Your task to perform on an android device: uninstall "Google Play services" Image 0: 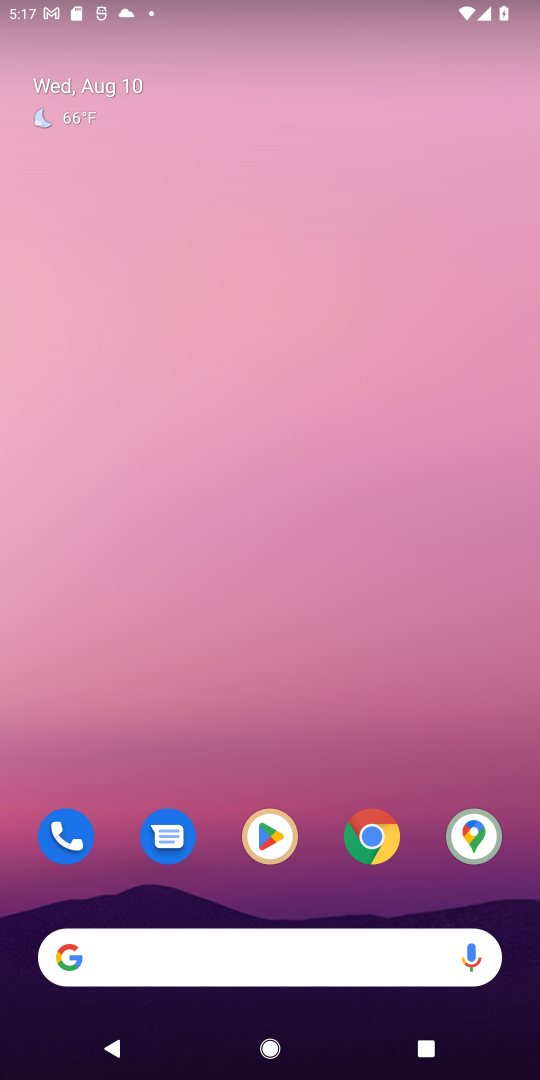
Step 0: drag from (164, 901) to (151, 246)
Your task to perform on an android device: uninstall "Google Play services" Image 1: 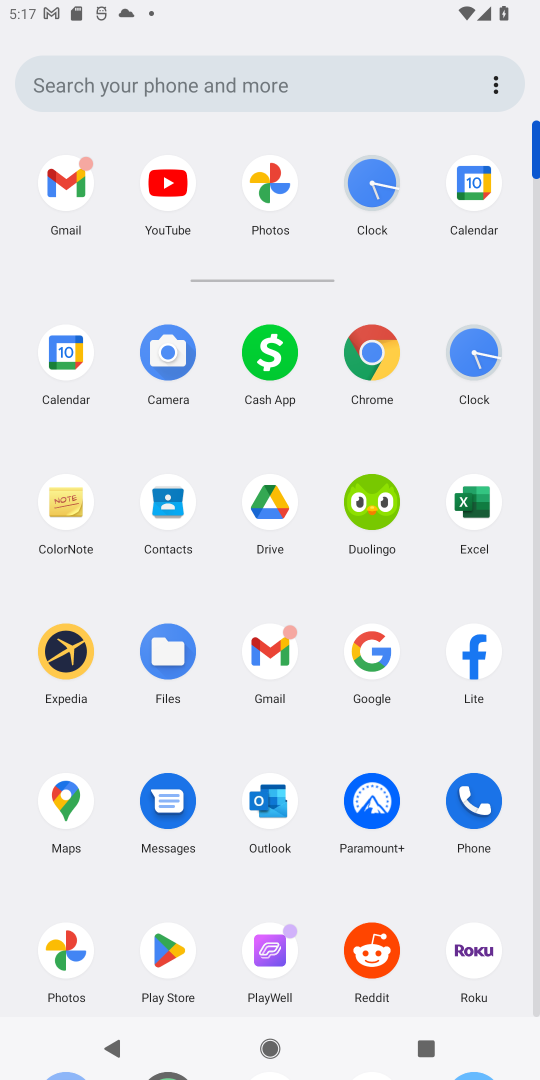
Step 1: click (157, 947)
Your task to perform on an android device: uninstall "Google Play services" Image 2: 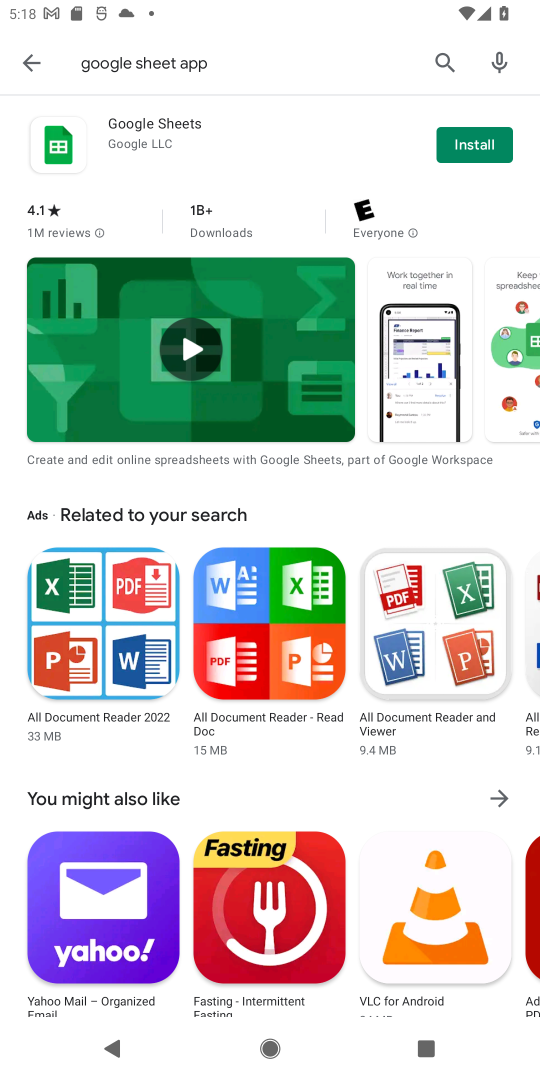
Step 2: click (42, 52)
Your task to perform on an android device: uninstall "Google Play services" Image 3: 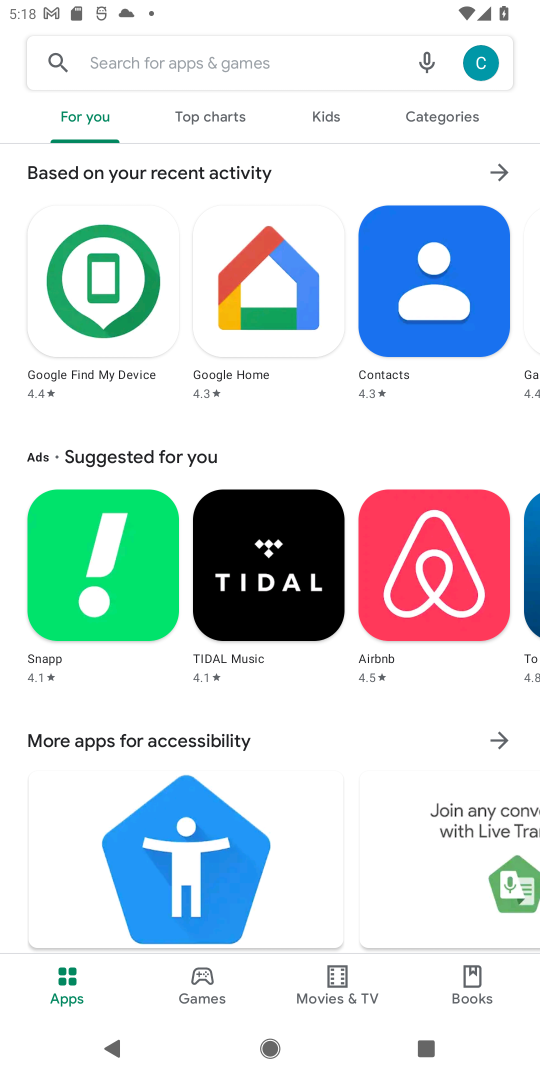
Step 3: click (240, 54)
Your task to perform on an android device: uninstall "Google Play services" Image 4: 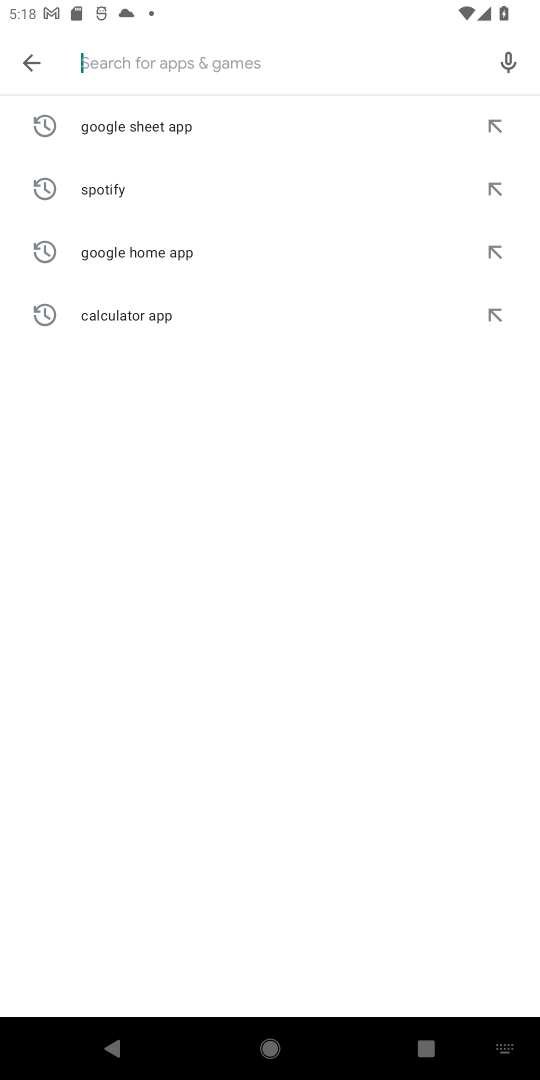
Step 4: type "Google Play services "
Your task to perform on an android device: uninstall "Google Play services" Image 5: 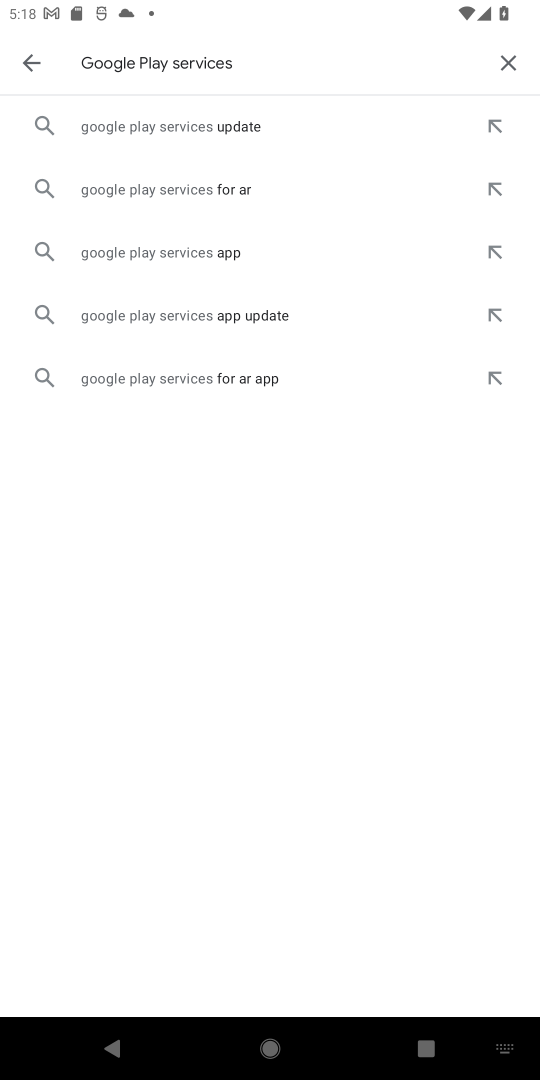
Step 5: click (231, 137)
Your task to perform on an android device: uninstall "Google Play services" Image 6: 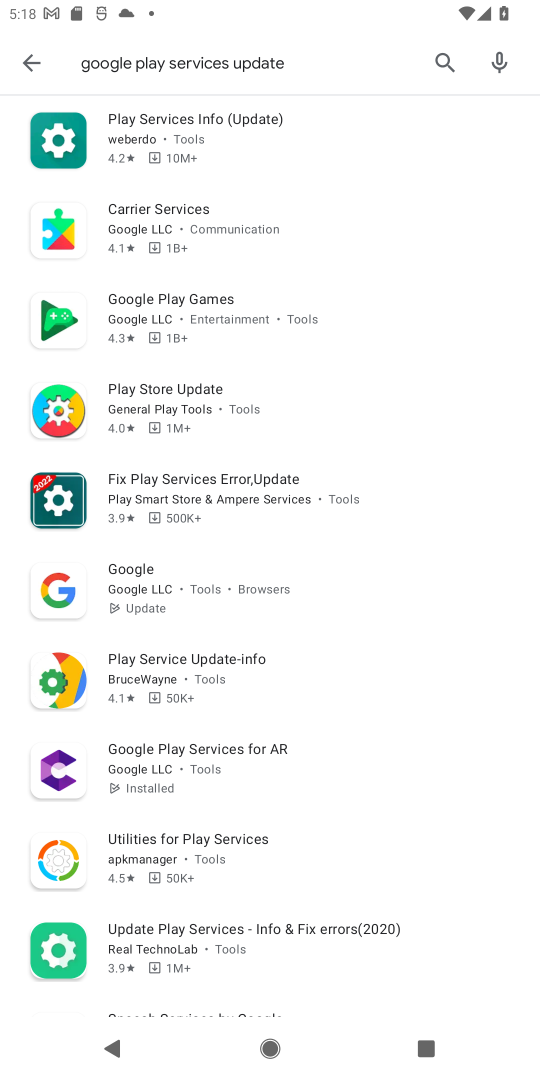
Step 6: click (194, 141)
Your task to perform on an android device: uninstall "Google Play services" Image 7: 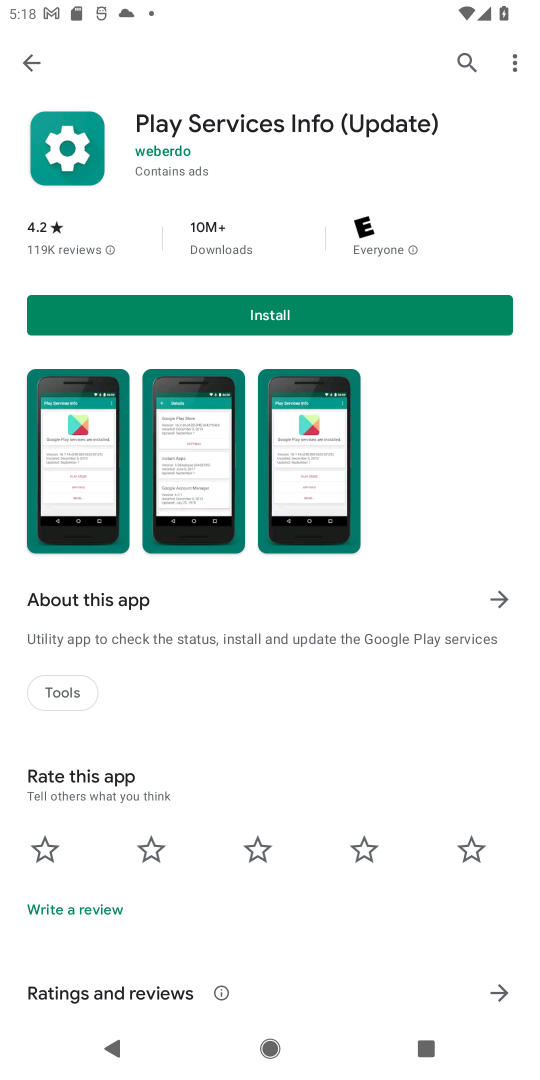
Step 7: task complete